Your task to perform on an android device: open a new tab in the chrome app Image 0: 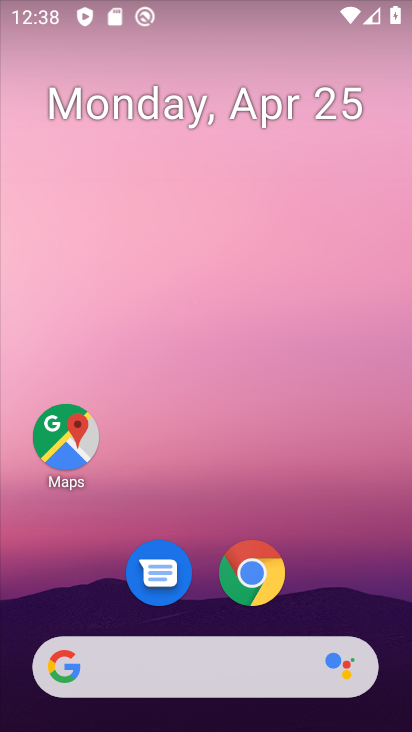
Step 0: click (264, 580)
Your task to perform on an android device: open a new tab in the chrome app Image 1: 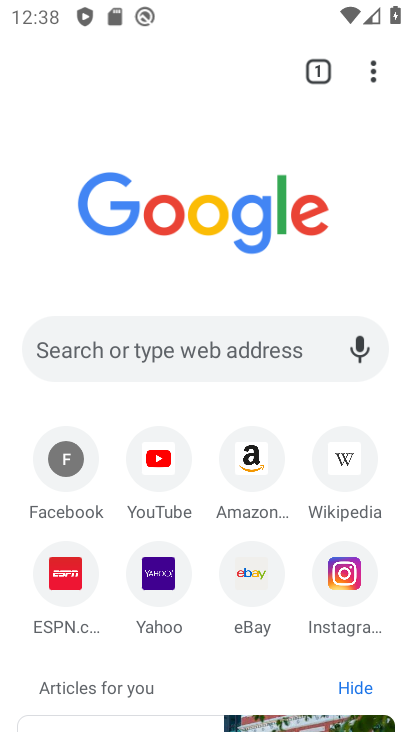
Step 1: click (376, 78)
Your task to perform on an android device: open a new tab in the chrome app Image 2: 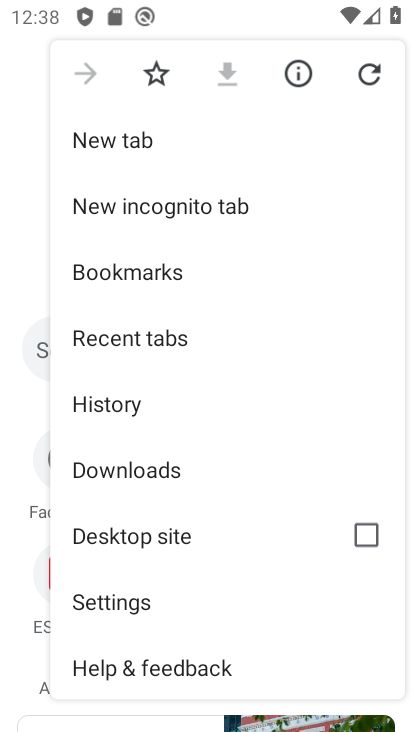
Step 2: click (100, 143)
Your task to perform on an android device: open a new tab in the chrome app Image 3: 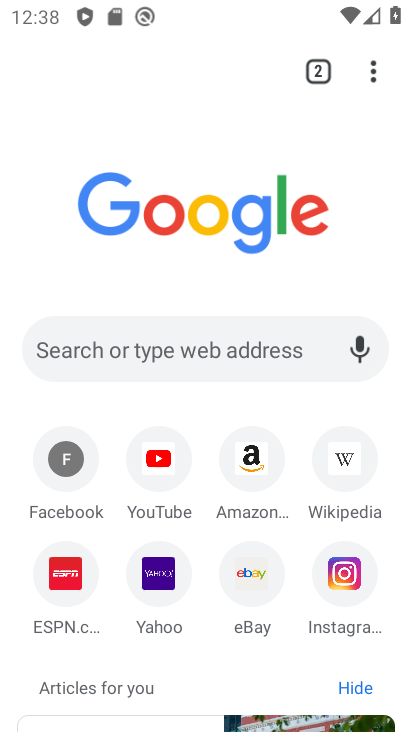
Step 3: task complete